Your task to perform on an android device: When is my next appointment? Image 0: 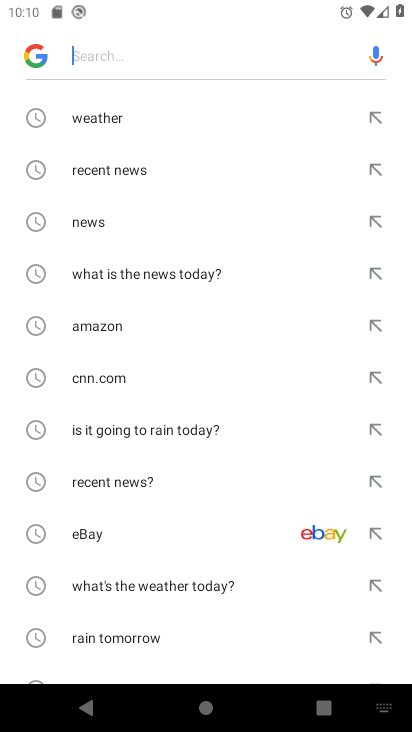
Step 0: press home button
Your task to perform on an android device: When is my next appointment? Image 1: 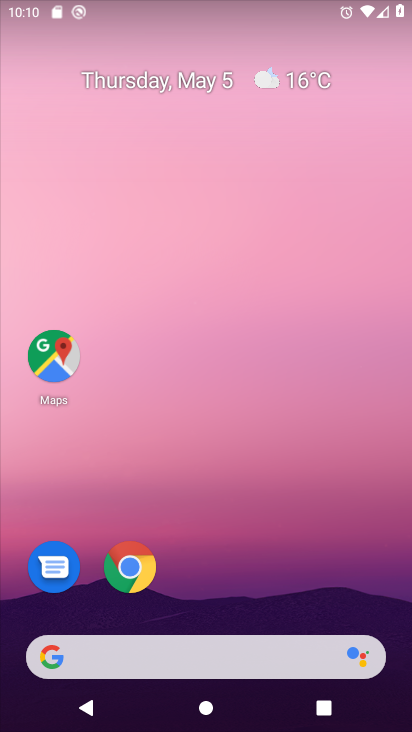
Step 1: drag from (263, 479) to (296, 43)
Your task to perform on an android device: When is my next appointment? Image 2: 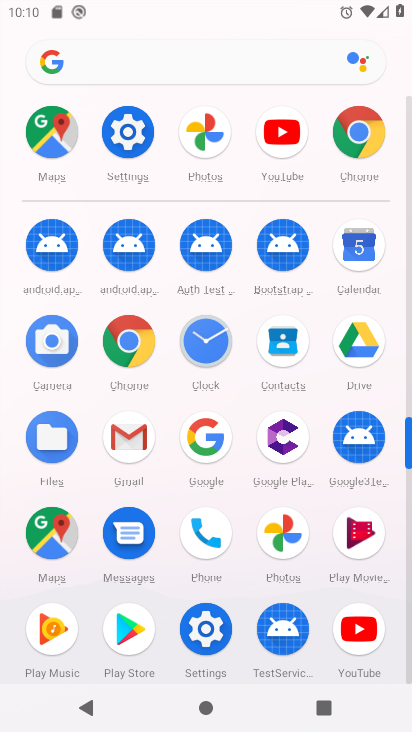
Step 2: click (356, 246)
Your task to perform on an android device: When is my next appointment? Image 3: 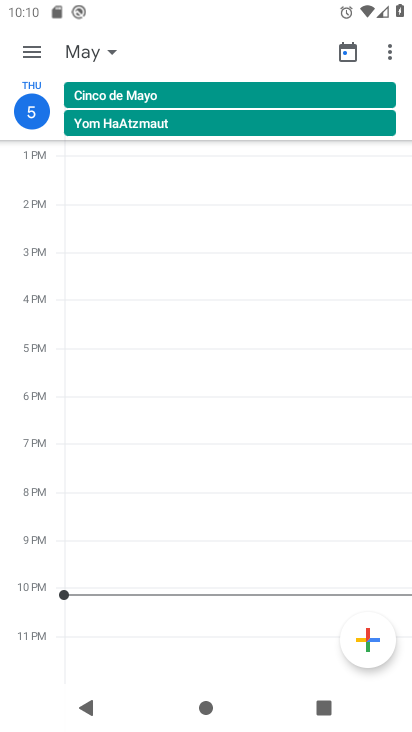
Step 3: click (32, 43)
Your task to perform on an android device: When is my next appointment? Image 4: 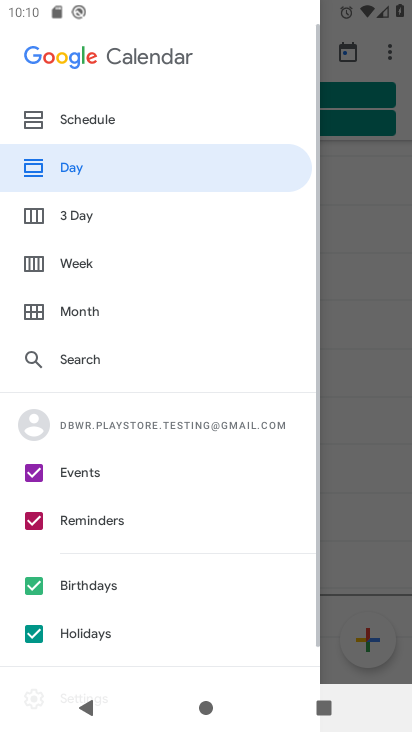
Step 4: click (78, 114)
Your task to perform on an android device: When is my next appointment? Image 5: 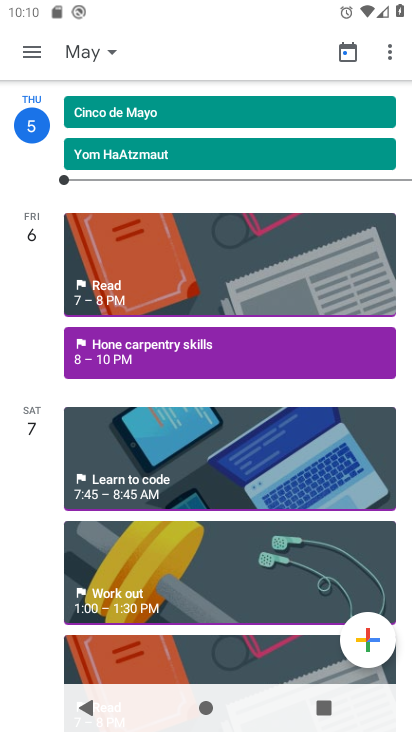
Step 5: task complete